Your task to perform on an android device: Go to Maps Image 0: 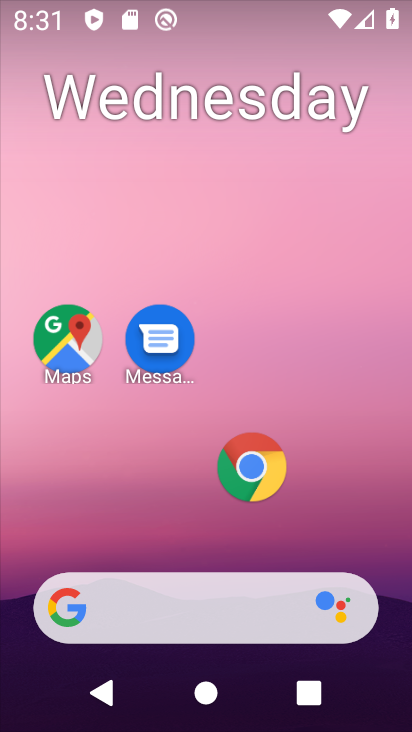
Step 0: click (69, 343)
Your task to perform on an android device: Go to Maps Image 1: 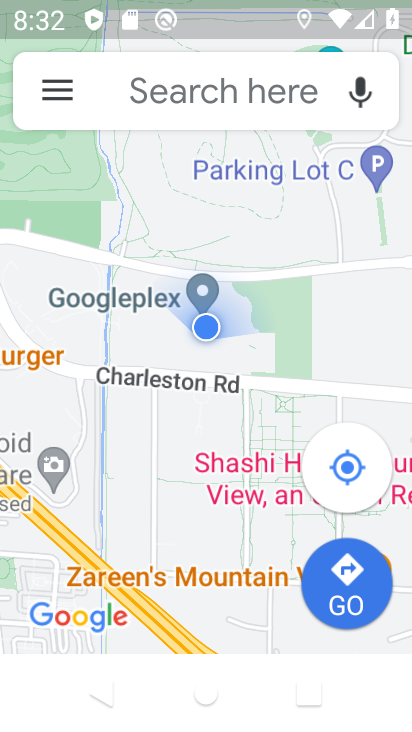
Step 1: task complete